Your task to perform on an android device: search for starred emails in the gmail app Image 0: 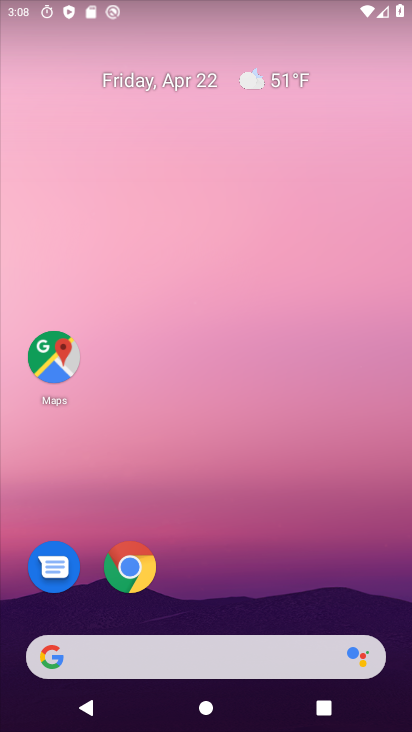
Step 0: drag from (268, 472) to (234, 45)
Your task to perform on an android device: search for starred emails in the gmail app Image 1: 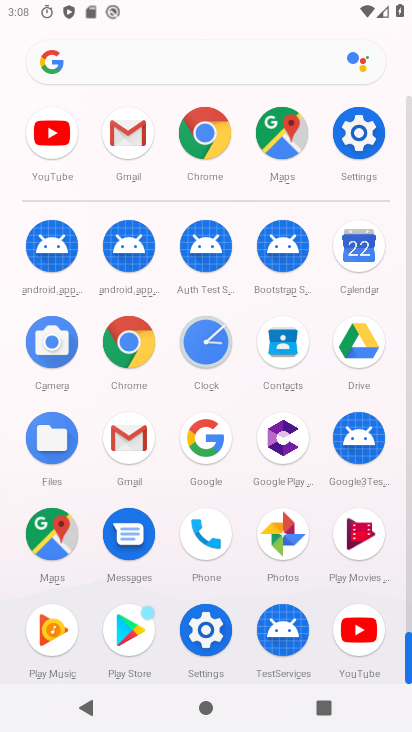
Step 1: click (127, 441)
Your task to perform on an android device: search for starred emails in the gmail app Image 2: 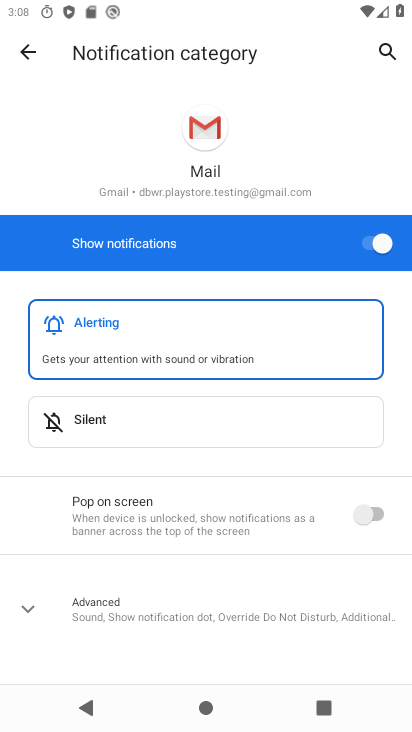
Step 2: click (28, 52)
Your task to perform on an android device: search for starred emails in the gmail app Image 3: 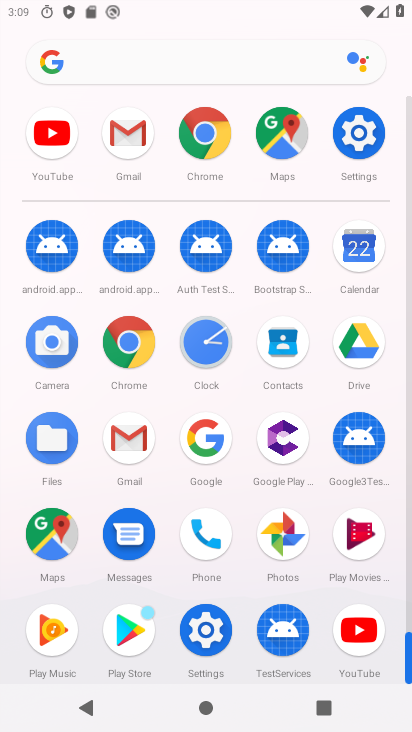
Step 3: click (112, 437)
Your task to perform on an android device: search for starred emails in the gmail app Image 4: 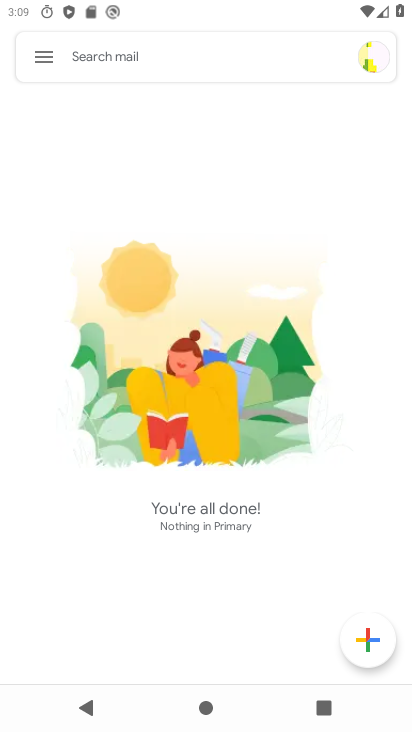
Step 4: click (129, 57)
Your task to perform on an android device: search for starred emails in the gmail app Image 5: 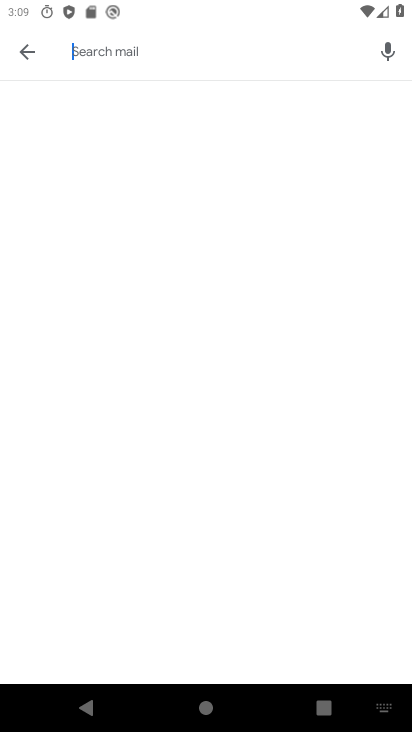
Step 5: type "starred"
Your task to perform on an android device: search for starred emails in the gmail app Image 6: 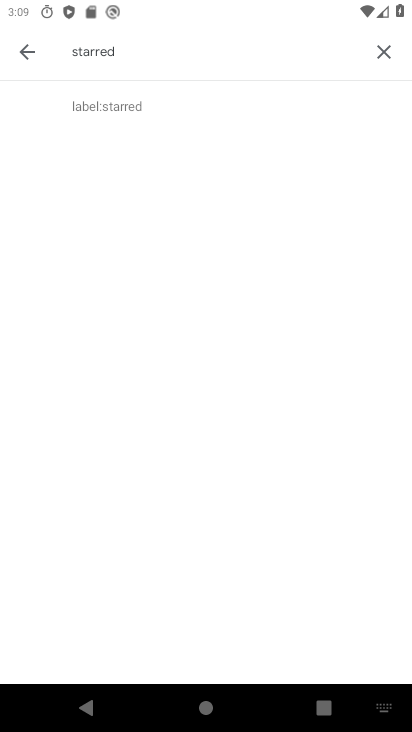
Step 6: click (123, 103)
Your task to perform on an android device: search for starred emails in the gmail app Image 7: 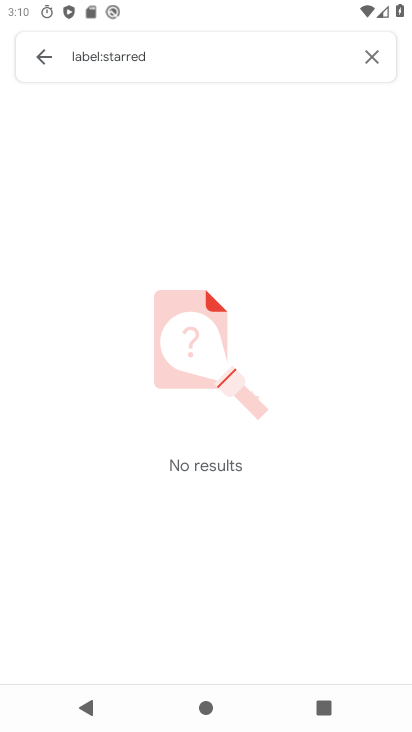
Step 7: task complete